Your task to perform on an android device: change the clock display to digital Image 0: 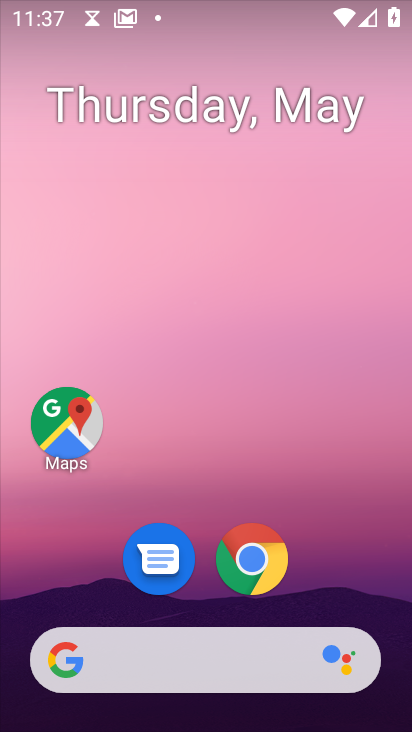
Step 0: drag from (200, 728) to (161, 248)
Your task to perform on an android device: change the clock display to digital Image 1: 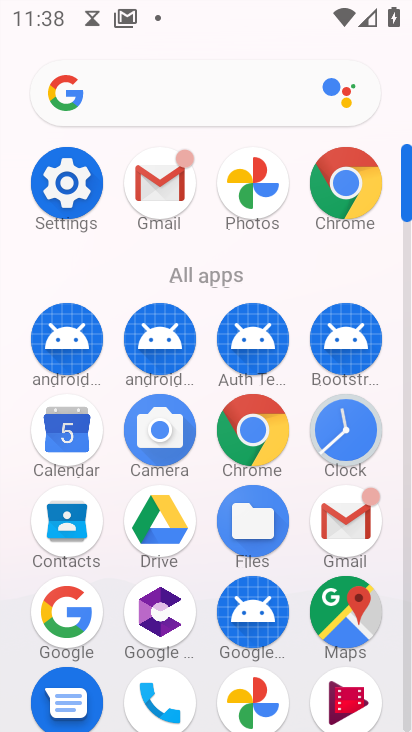
Step 1: click (342, 416)
Your task to perform on an android device: change the clock display to digital Image 2: 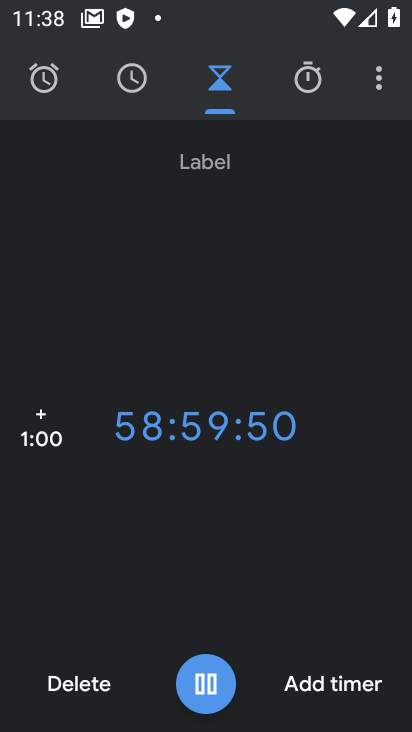
Step 2: click (380, 85)
Your task to perform on an android device: change the clock display to digital Image 3: 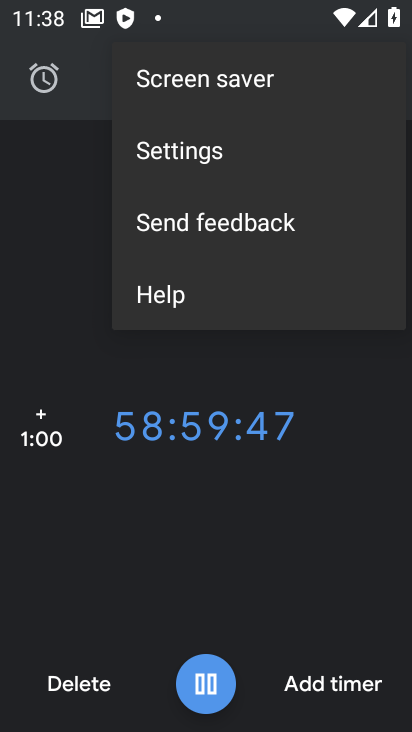
Step 3: click (184, 149)
Your task to perform on an android device: change the clock display to digital Image 4: 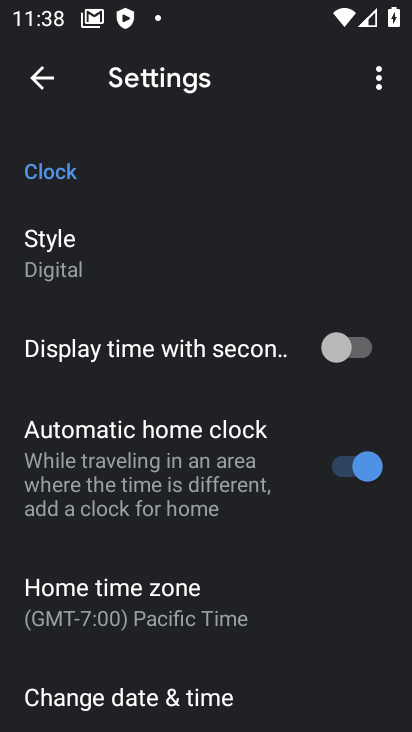
Step 4: task complete